Your task to perform on an android device: open app "Microsoft Authenticator" (install if not already installed) Image 0: 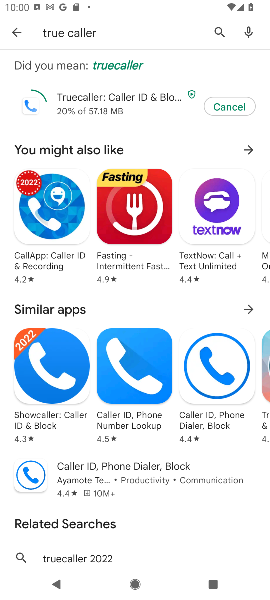
Step 0: click (221, 42)
Your task to perform on an android device: open app "Microsoft Authenticator" (install if not already installed) Image 1: 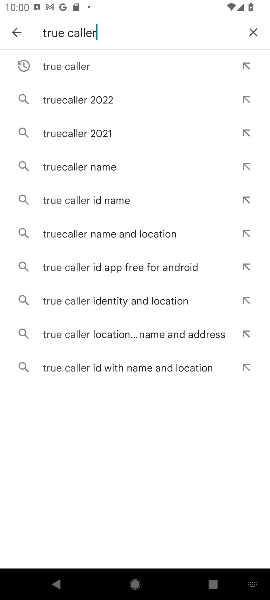
Step 1: click (249, 24)
Your task to perform on an android device: open app "Microsoft Authenticator" (install if not already installed) Image 2: 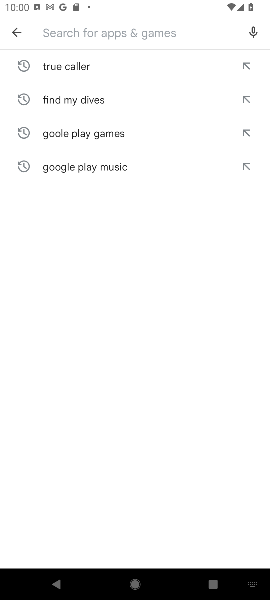
Step 2: type "authenticator"
Your task to perform on an android device: open app "Microsoft Authenticator" (install if not already installed) Image 3: 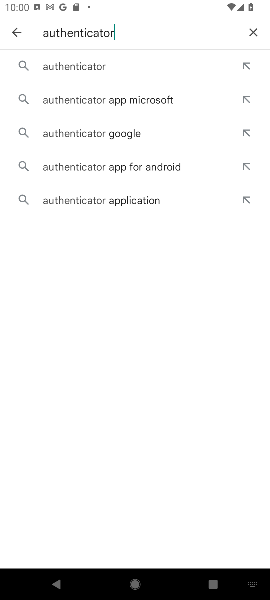
Step 3: click (92, 71)
Your task to perform on an android device: open app "Microsoft Authenticator" (install if not already installed) Image 4: 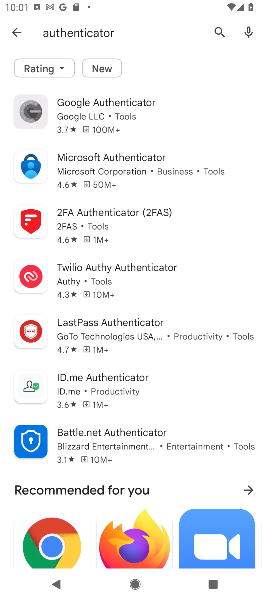
Step 4: click (147, 150)
Your task to perform on an android device: open app "Microsoft Authenticator" (install if not already installed) Image 5: 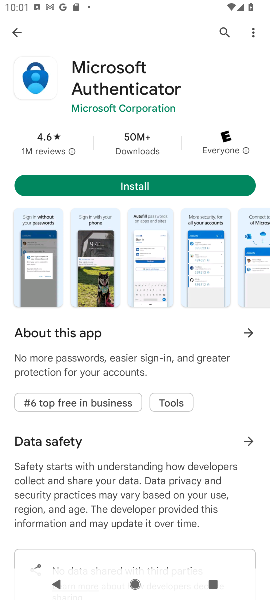
Step 5: click (145, 187)
Your task to perform on an android device: open app "Microsoft Authenticator" (install if not already installed) Image 6: 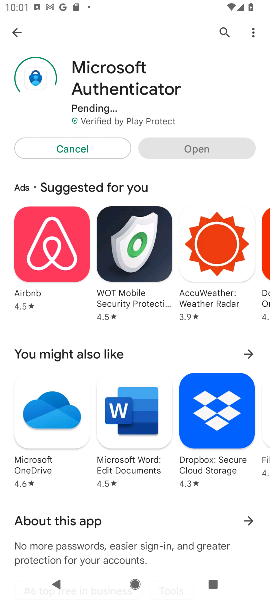
Step 6: task complete